Your task to perform on an android device: Open the stopwatch Image 0: 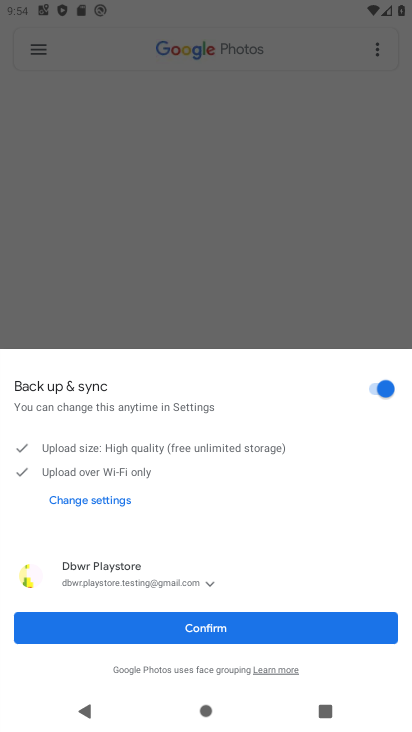
Step 0: press home button
Your task to perform on an android device: Open the stopwatch Image 1: 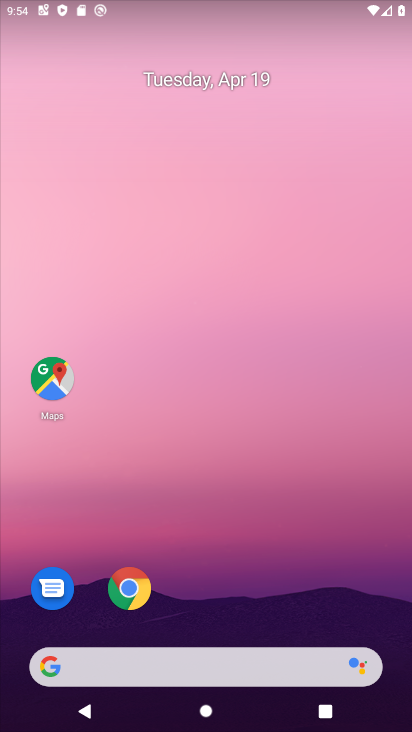
Step 1: drag from (195, 637) to (294, 8)
Your task to perform on an android device: Open the stopwatch Image 2: 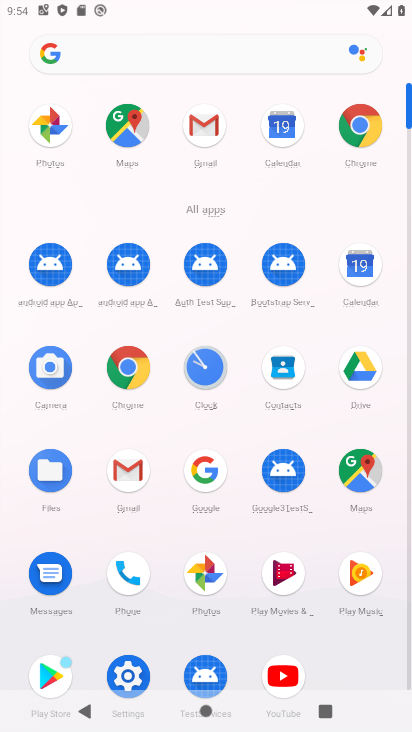
Step 2: click (205, 374)
Your task to perform on an android device: Open the stopwatch Image 3: 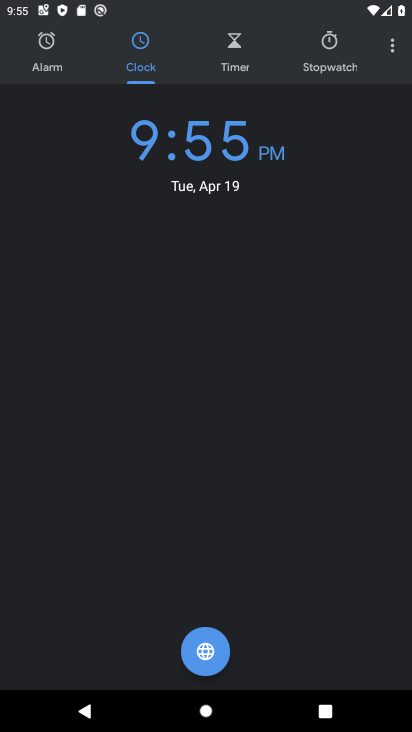
Step 3: click (326, 66)
Your task to perform on an android device: Open the stopwatch Image 4: 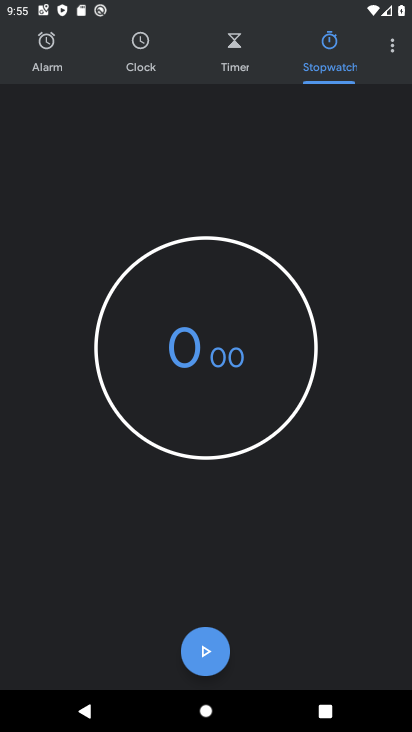
Step 4: task complete